Your task to perform on an android device: set default search engine in the chrome app Image 0: 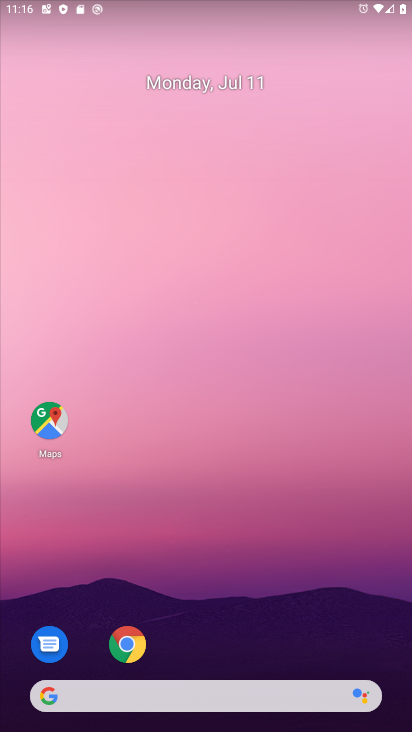
Step 0: click (125, 644)
Your task to perform on an android device: set default search engine in the chrome app Image 1: 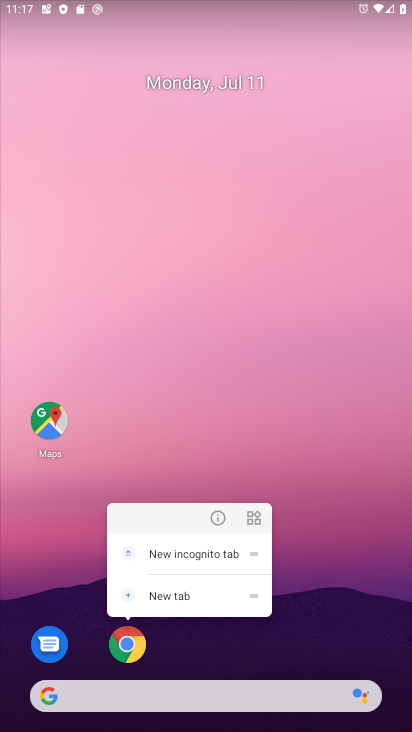
Step 1: click (118, 646)
Your task to perform on an android device: set default search engine in the chrome app Image 2: 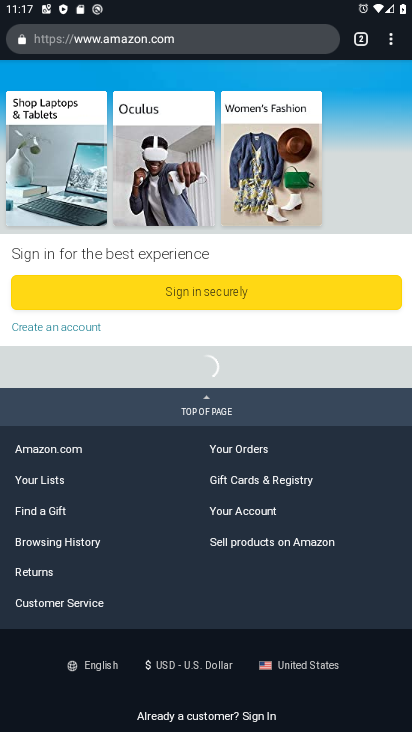
Step 2: click (392, 35)
Your task to perform on an android device: set default search engine in the chrome app Image 3: 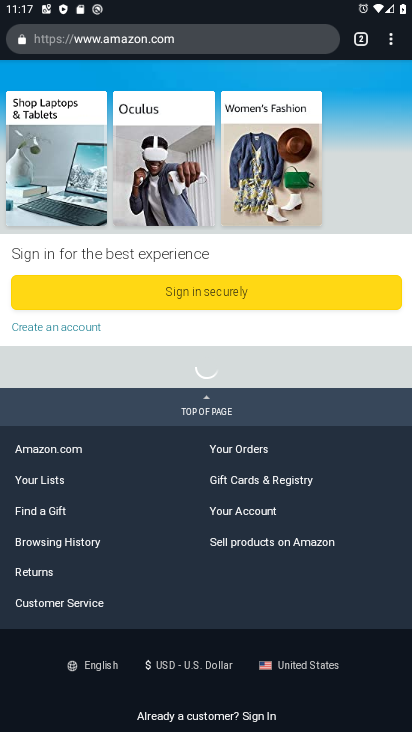
Step 3: click (390, 39)
Your task to perform on an android device: set default search engine in the chrome app Image 4: 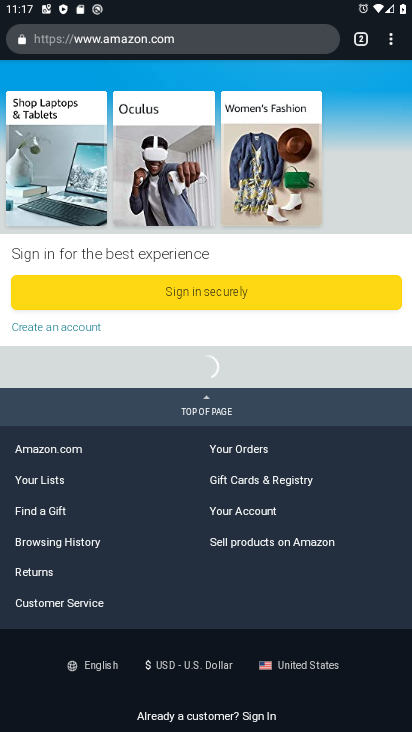
Step 4: click (388, 41)
Your task to perform on an android device: set default search engine in the chrome app Image 5: 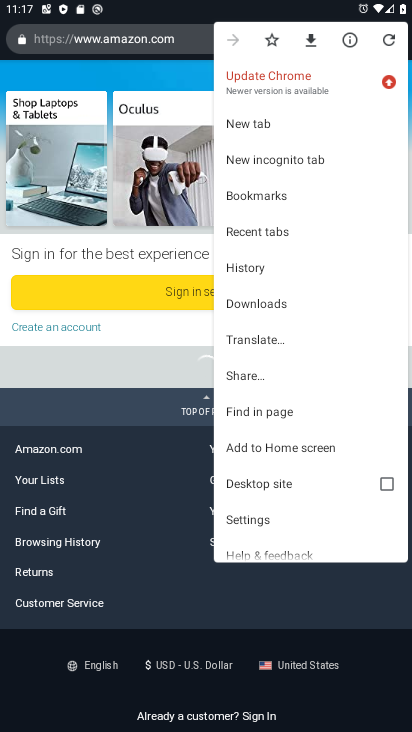
Step 5: click (267, 519)
Your task to perform on an android device: set default search engine in the chrome app Image 6: 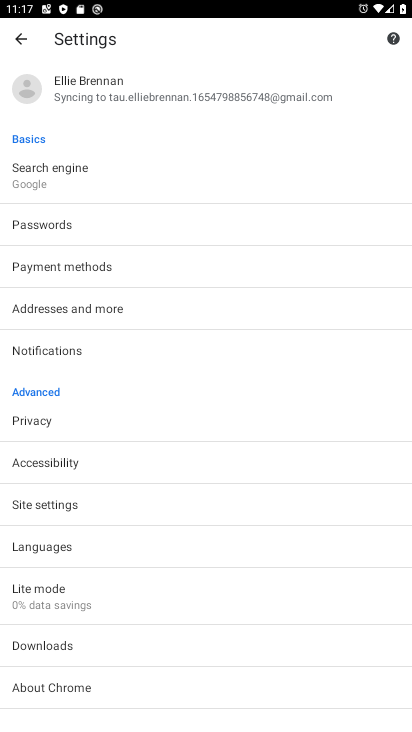
Step 6: click (100, 177)
Your task to perform on an android device: set default search engine in the chrome app Image 7: 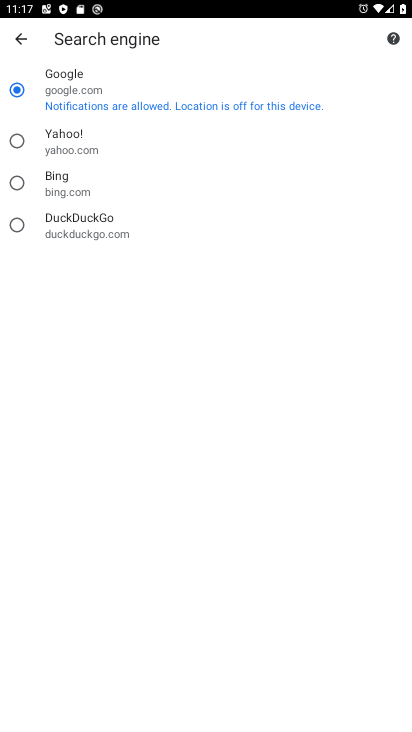
Step 7: click (14, 182)
Your task to perform on an android device: set default search engine in the chrome app Image 8: 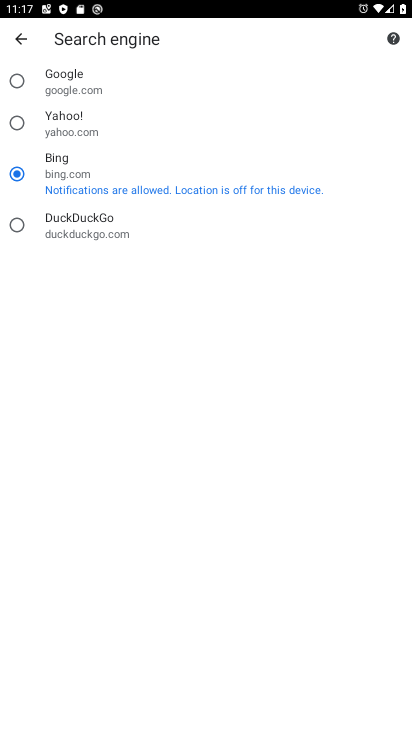
Step 8: task complete